Your task to perform on an android device: star an email in the gmail app Image 0: 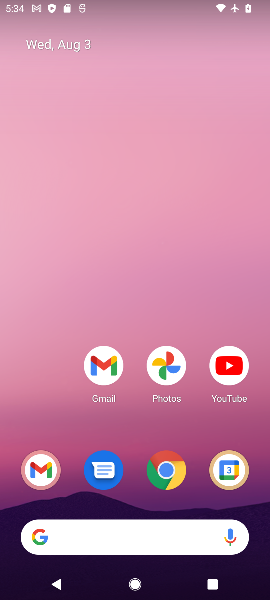
Step 0: drag from (130, 421) to (149, 108)
Your task to perform on an android device: star an email in the gmail app Image 1: 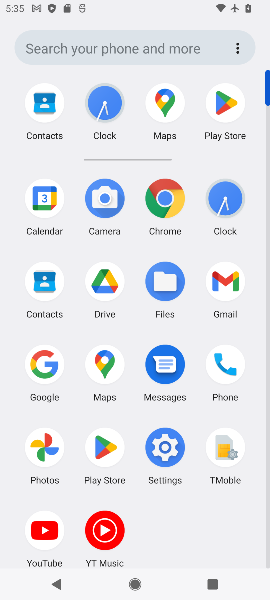
Step 1: click (219, 271)
Your task to perform on an android device: star an email in the gmail app Image 2: 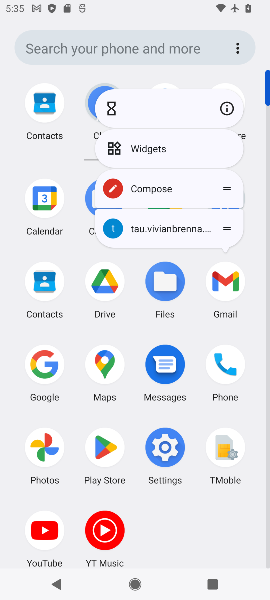
Step 2: click (220, 275)
Your task to perform on an android device: star an email in the gmail app Image 3: 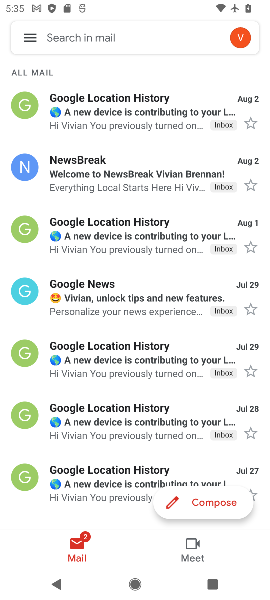
Step 3: click (36, 37)
Your task to perform on an android device: star an email in the gmail app Image 4: 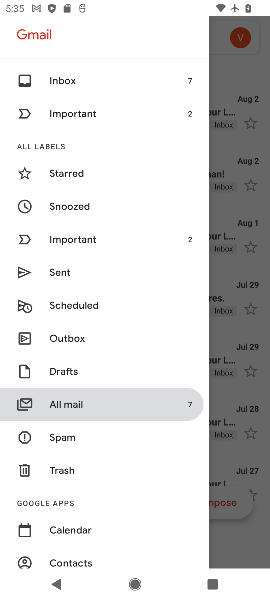
Step 4: click (82, 168)
Your task to perform on an android device: star an email in the gmail app Image 5: 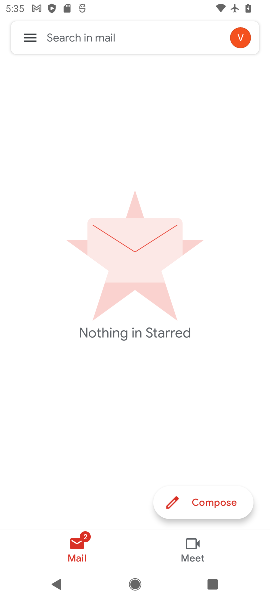
Step 5: click (19, 34)
Your task to perform on an android device: star an email in the gmail app Image 6: 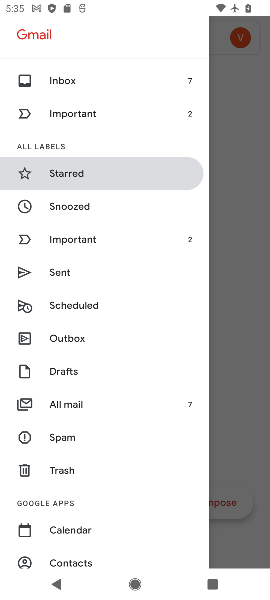
Step 6: click (107, 405)
Your task to perform on an android device: star an email in the gmail app Image 7: 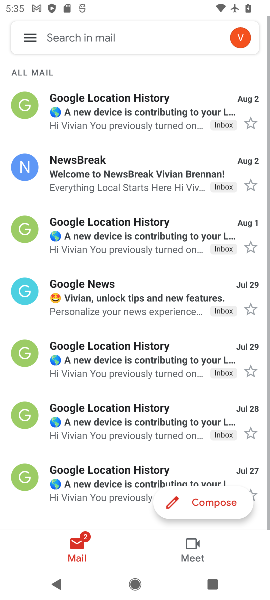
Step 7: click (248, 117)
Your task to perform on an android device: star an email in the gmail app Image 8: 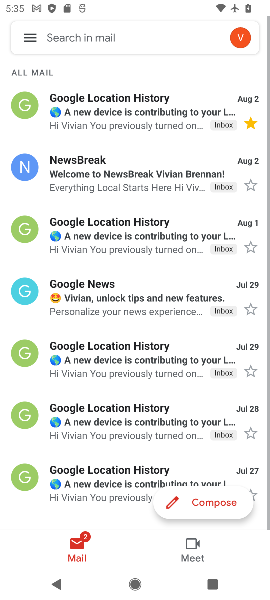
Step 8: task complete